Your task to perform on an android device: Go to Google maps Image 0: 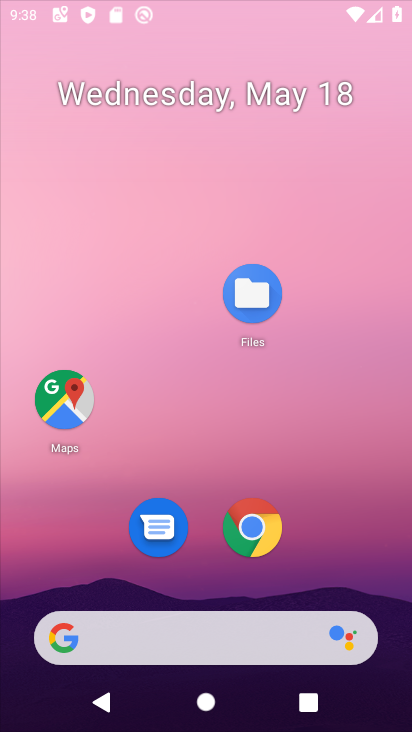
Step 0: drag from (311, 483) to (375, 209)
Your task to perform on an android device: Go to Google maps Image 1: 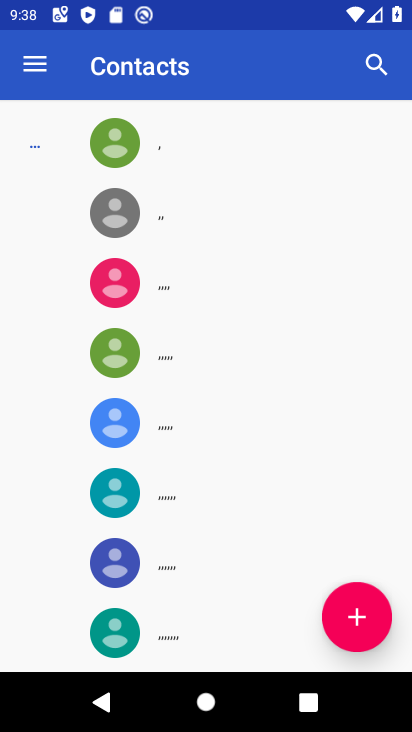
Step 1: press home button
Your task to perform on an android device: Go to Google maps Image 2: 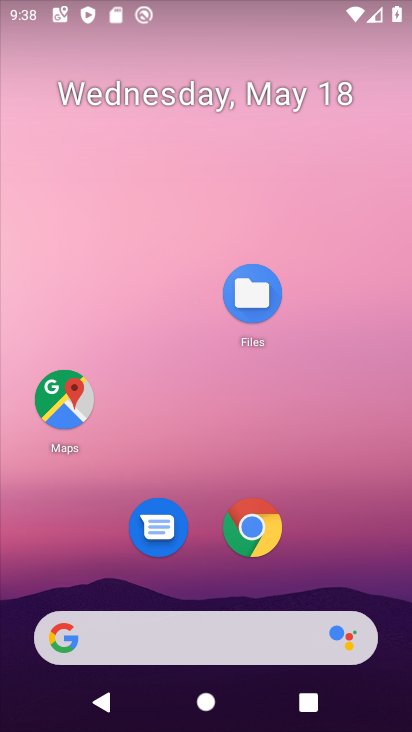
Step 2: drag from (369, 537) to (370, 311)
Your task to perform on an android device: Go to Google maps Image 3: 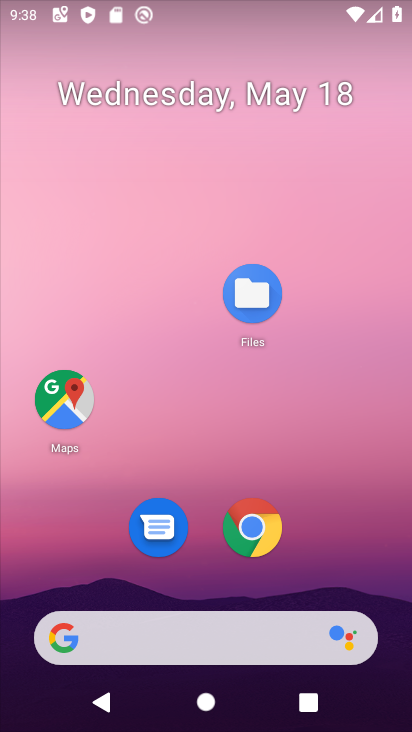
Step 3: click (78, 418)
Your task to perform on an android device: Go to Google maps Image 4: 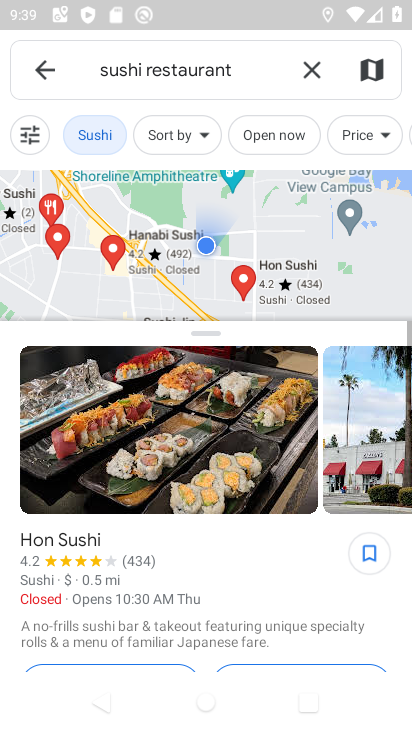
Step 4: task complete